Your task to perform on an android device: Open Wikipedia Image 0: 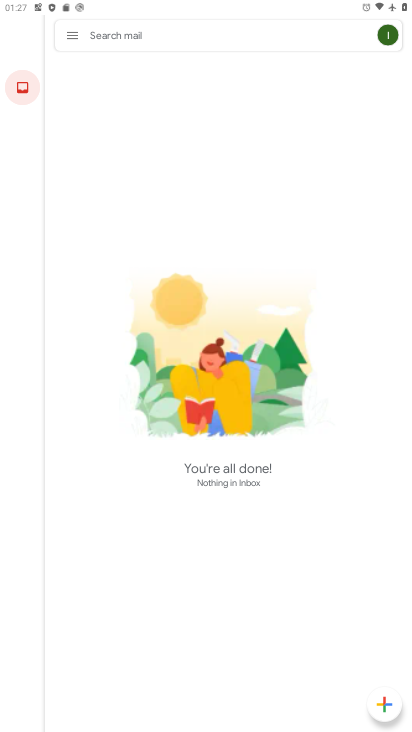
Step 0: press home button
Your task to perform on an android device: Open Wikipedia Image 1: 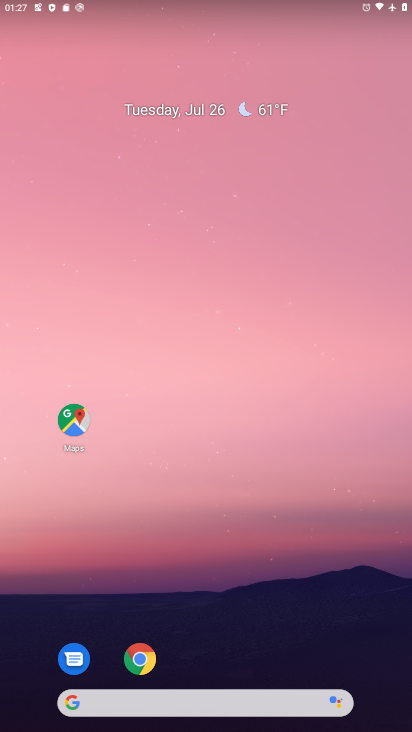
Step 1: drag from (264, 615) to (253, 45)
Your task to perform on an android device: Open Wikipedia Image 2: 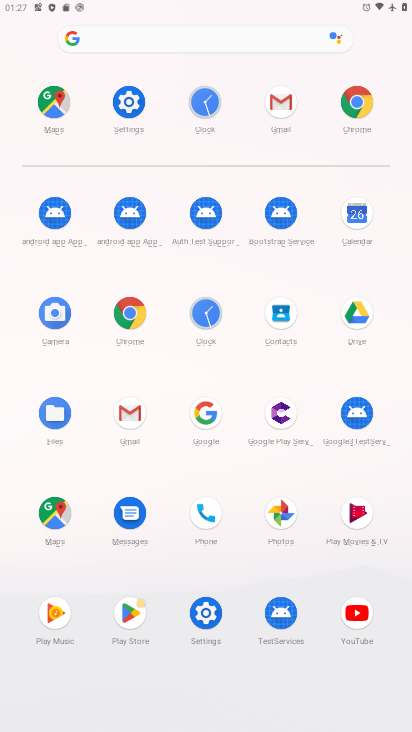
Step 2: click (352, 103)
Your task to perform on an android device: Open Wikipedia Image 3: 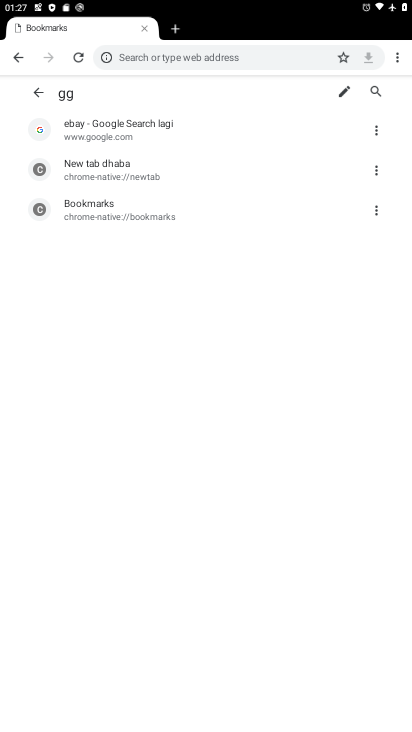
Step 3: click (192, 62)
Your task to perform on an android device: Open Wikipedia Image 4: 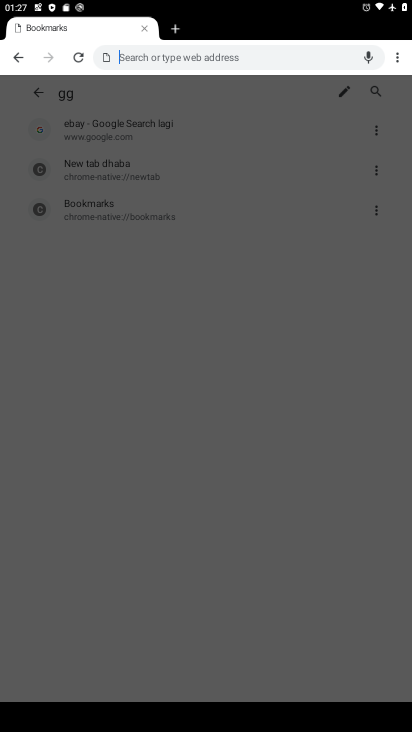
Step 4: type "wikipedia"
Your task to perform on an android device: Open Wikipedia Image 5: 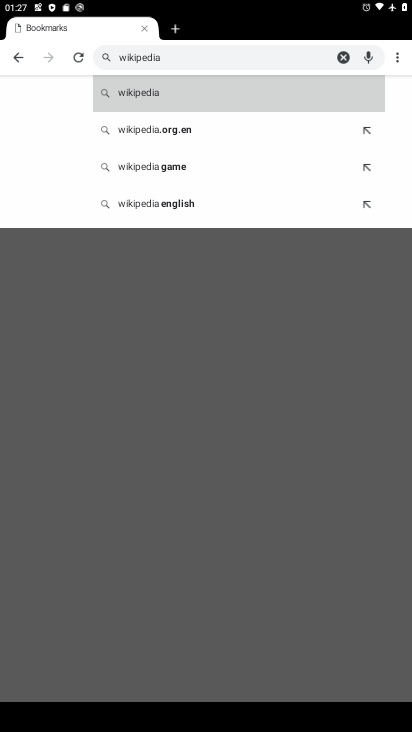
Step 5: click (157, 99)
Your task to perform on an android device: Open Wikipedia Image 6: 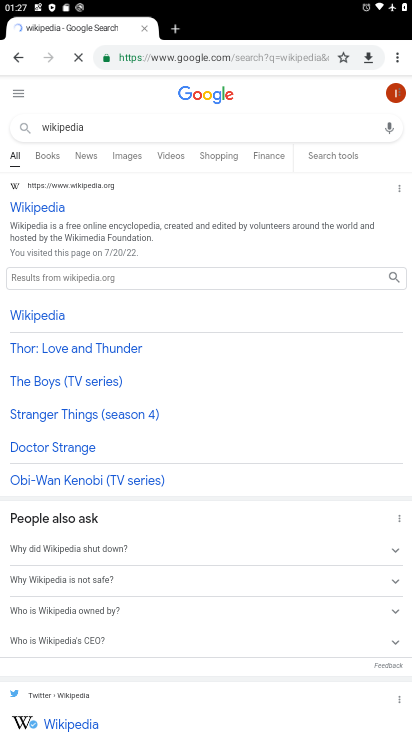
Step 6: click (58, 200)
Your task to perform on an android device: Open Wikipedia Image 7: 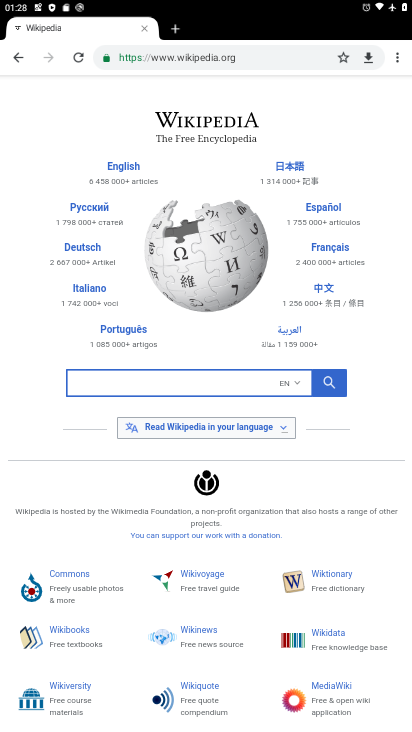
Step 7: task complete